Your task to perform on an android device: check google app version Image 0: 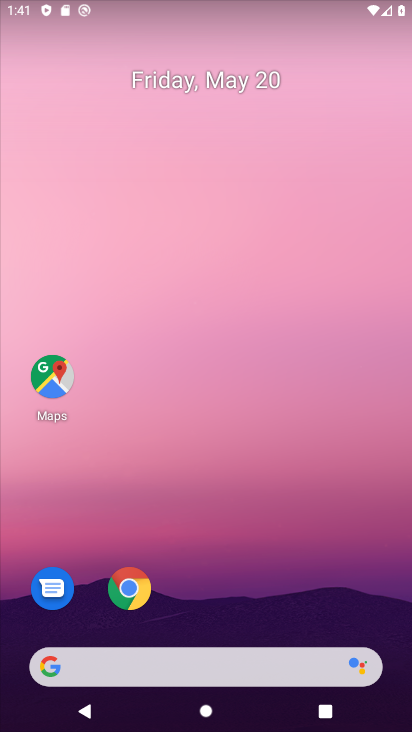
Step 0: click (214, 139)
Your task to perform on an android device: check google app version Image 1: 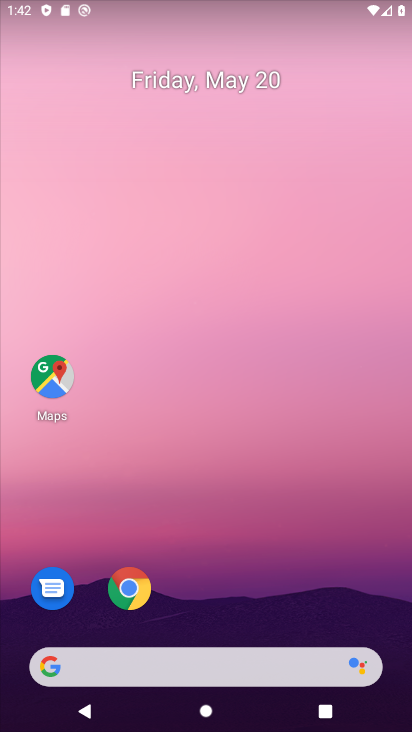
Step 1: drag from (249, 624) to (279, 12)
Your task to perform on an android device: check google app version Image 2: 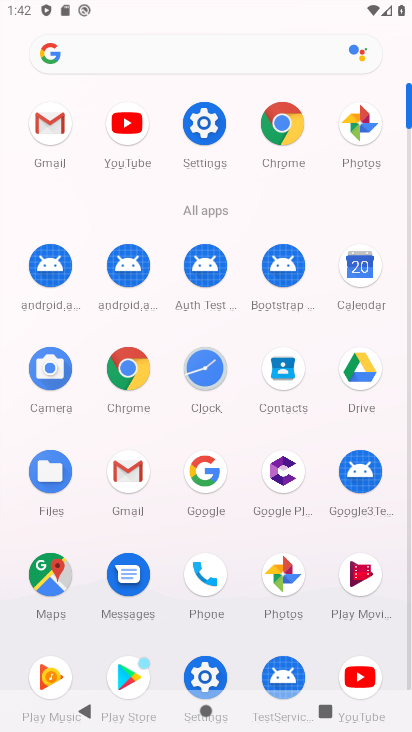
Step 2: click (199, 477)
Your task to perform on an android device: check google app version Image 3: 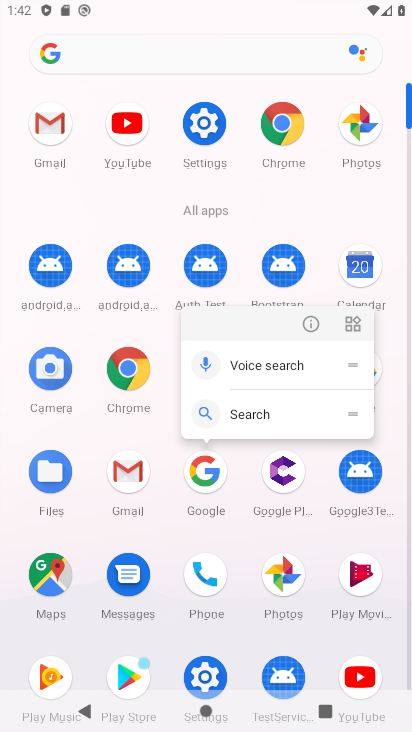
Step 3: click (199, 477)
Your task to perform on an android device: check google app version Image 4: 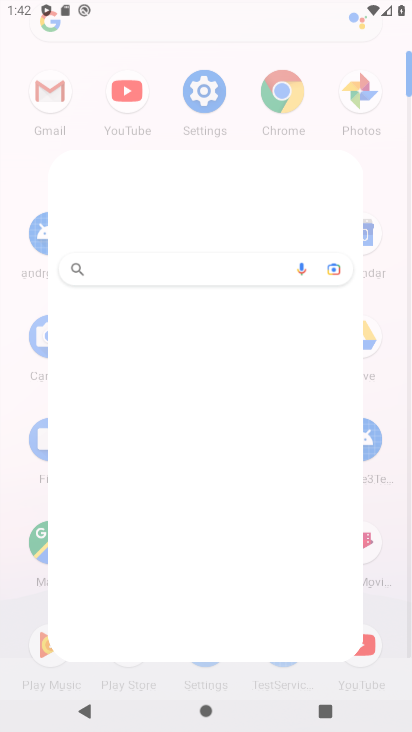
Step 4: click (187, 476)
Your task to perform on an android device: check google app version Image 5: 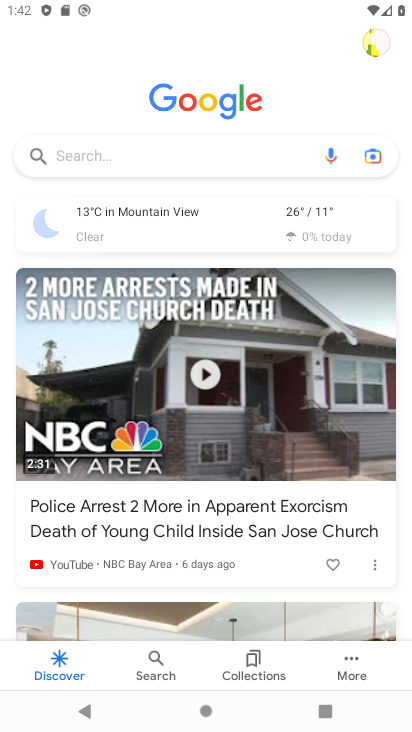
Step 5: click (347, 662)
Your task to perform on an android device: check google app version Image 6: 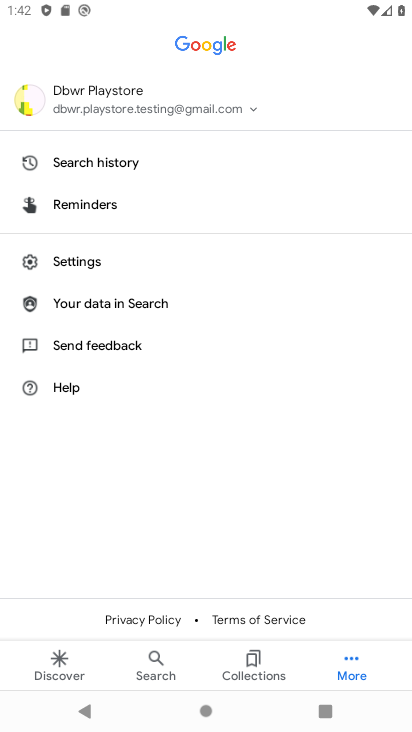
Step 6: click (76, 255)
Your task to perform on an android device: check google app version Image 7: 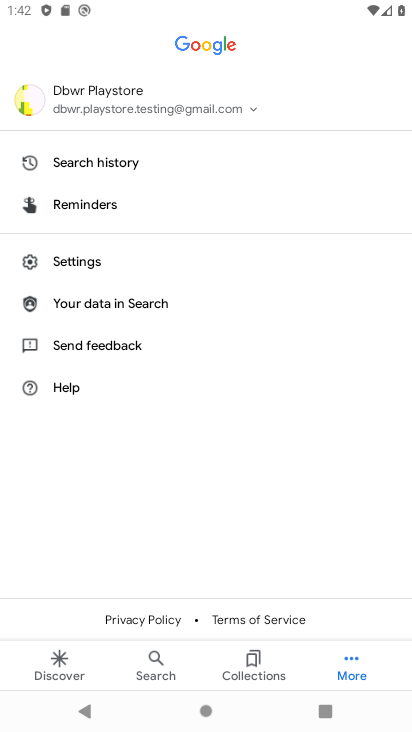
Step 7: click (75, 255)
Your task to perform on an android device: check google app version Image 8: 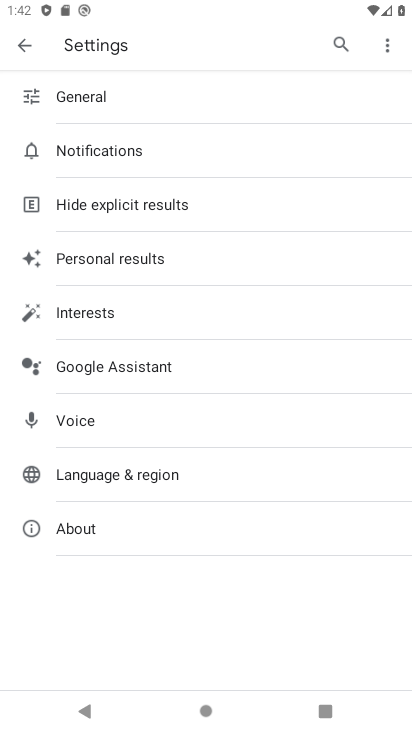
Step 8: click (67, 527)
Your task to perform on an android device: check google app version Image 9: 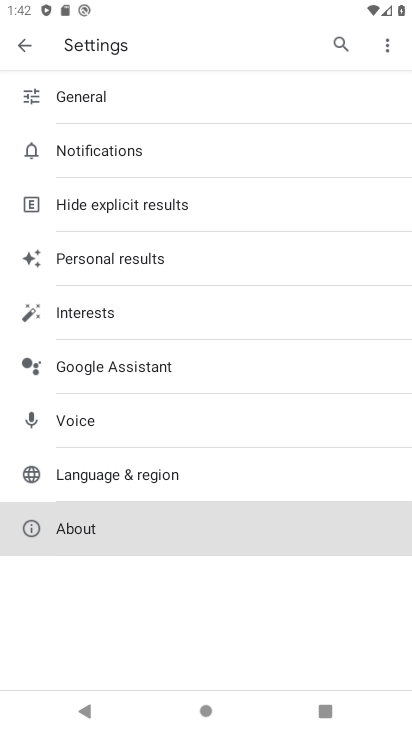
Step 9: click (67, 527)
Your task to perform on an android device: check google app version Image 10: 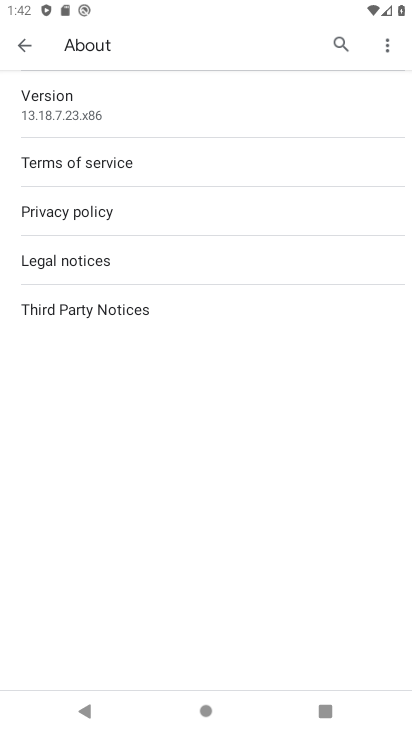
Step 10: click (66, 528)
Your task to perform on an android device: check google app version Image 11: 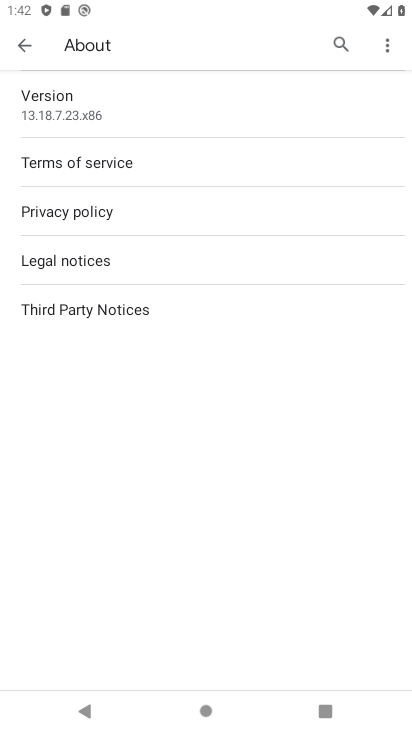
Step 11: click (66, 528)
Your task to perform on an android device: check google app version Image 12: 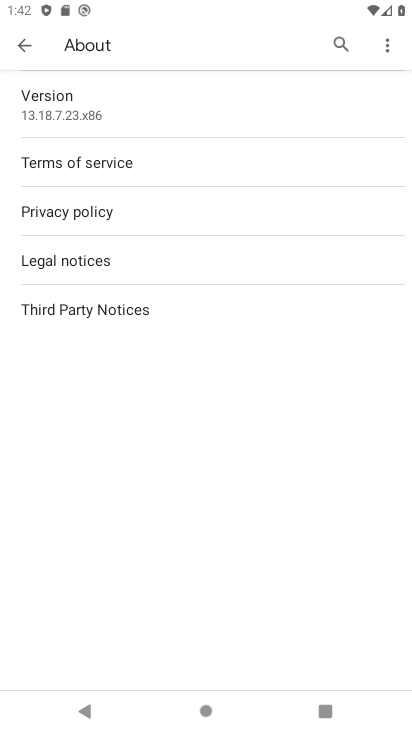
Step 12: task complete